Your task to perform on an android device: Set the phone to "Do not disturb". Image 0: 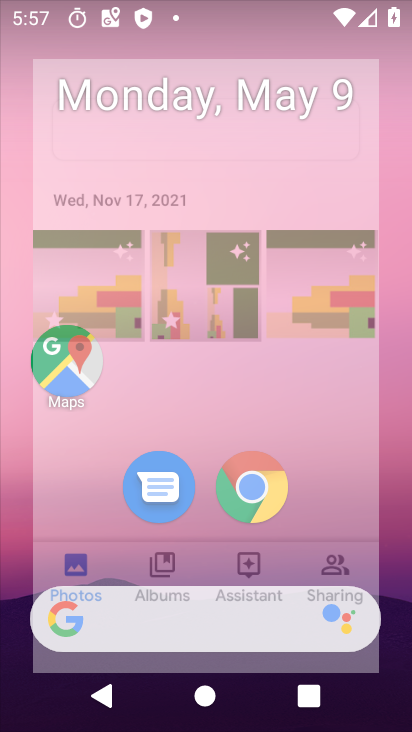
Step 0: drag from (301, 554) to (266, 195)
Your task to perform on an android device: Set the phone to "Do not disturb". Image 1: 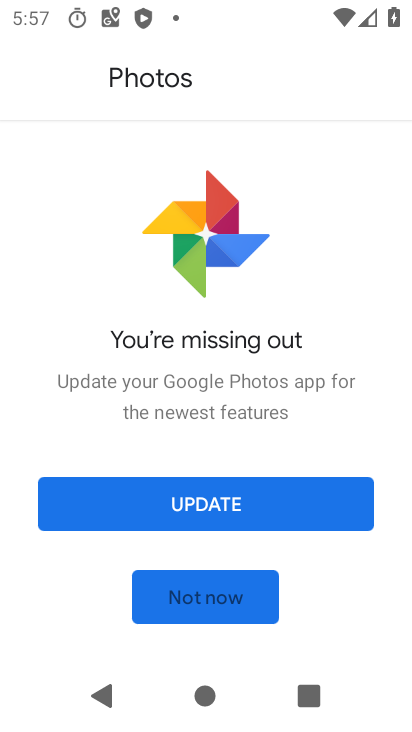
Step 1: press home button
Your task to perform on an android device: Set the phone to "Do not disturb". Image 2: 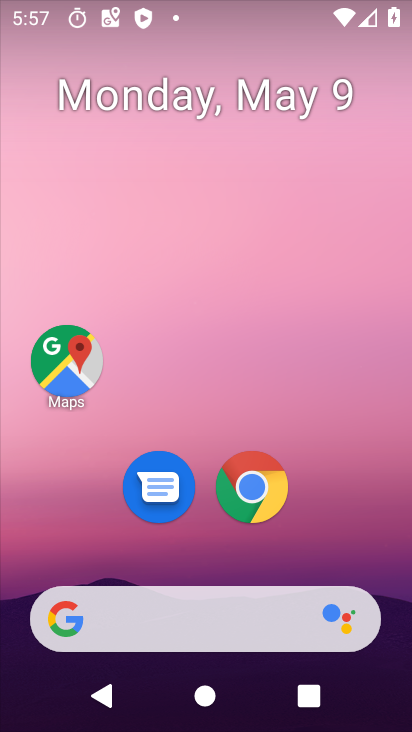
Step 2: drag from (242, 552) to (246, 92)
Your task to perform on an android device: Set the phone to "Do not disturb". Image 3: 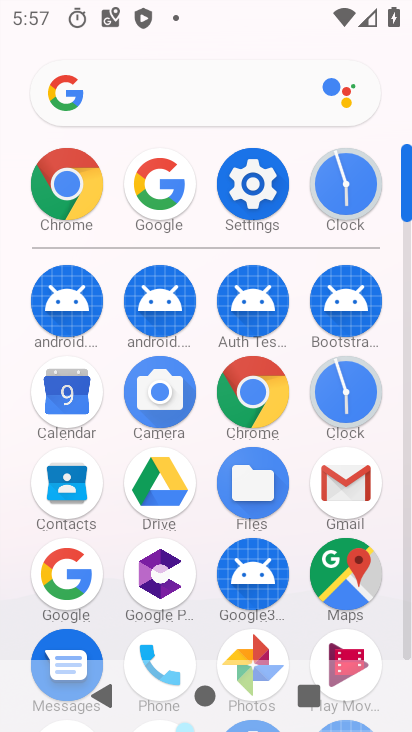
Step 3: click (258, 176)
Your task to perform on an android device: Set the phone to "Do not disturb". Image 4: 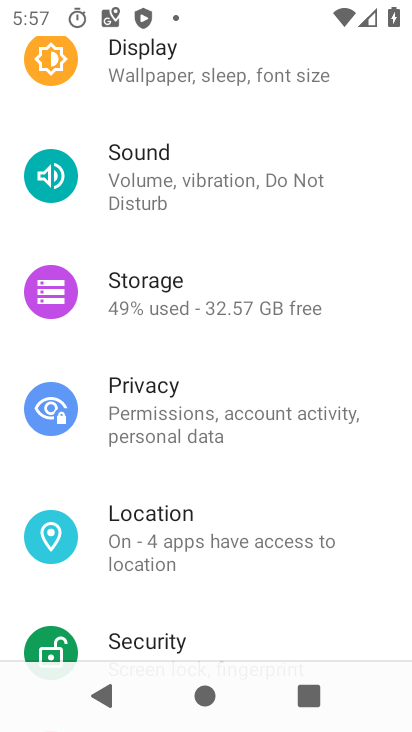
Step 4: click (165, 171)
Your task to perform on an android device: Set the phone to "Do not disturb". Image 5: 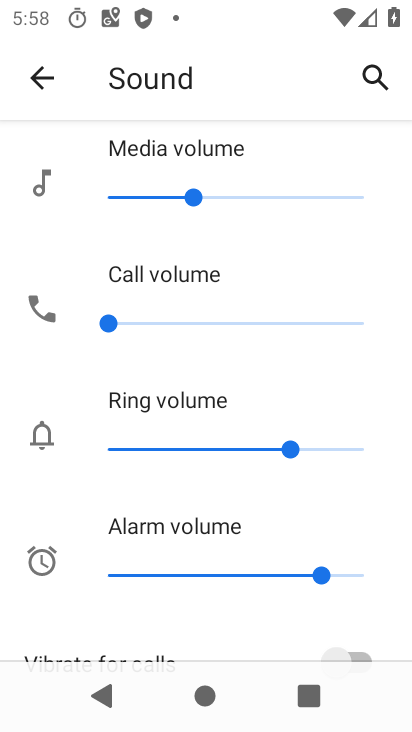
Step 5: drag from (164, 567) to (203, 147)
Your task to perform on an android device: Set the phone to "Do not disturb". Image 6: 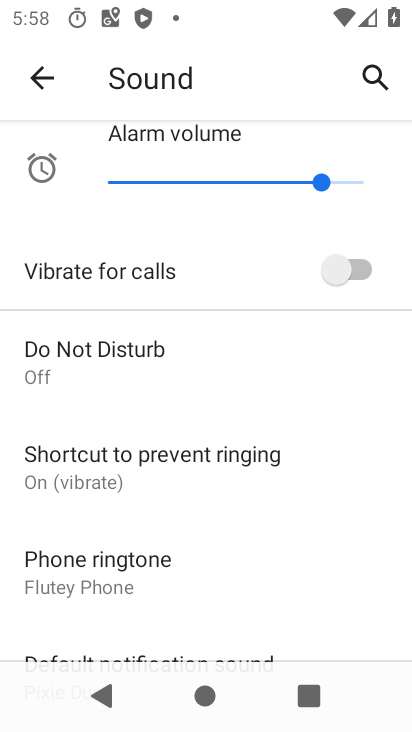
Step 6: click (81, 379)
Your task to perform on an android device: Set the phone to "Do not disturb". Image 7: 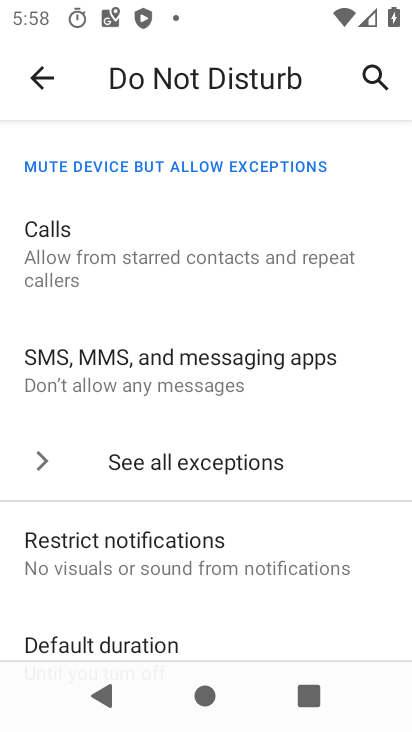
Step 7: drag from (148, 505) to (178, 75)
Your task to perform on an android device: Set the phone to "Do not disturb". Image 8: 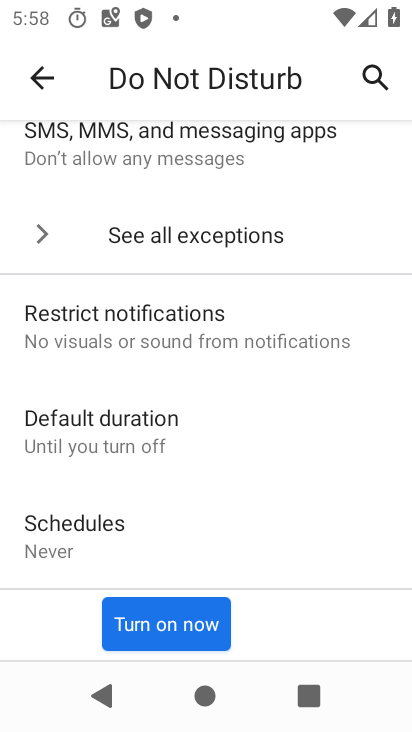
Step 8: click (140, 638)
Your task to perform on an android device: Set the phone to "Do not disturb". Image 9: 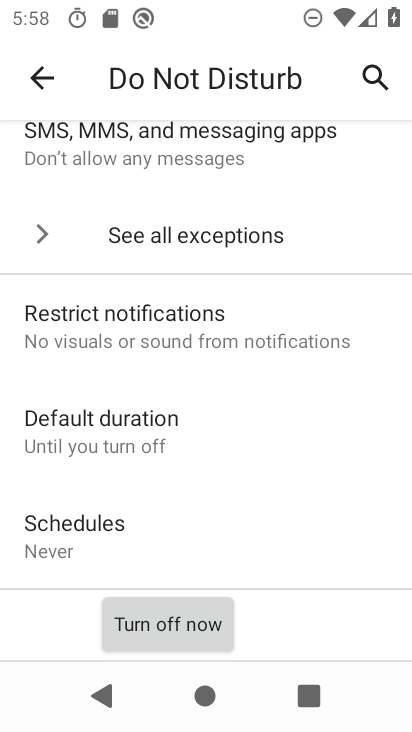
Step 9: task complete